Your task to perform on an android device: turn on priority inbox in the gmail app Image 0: 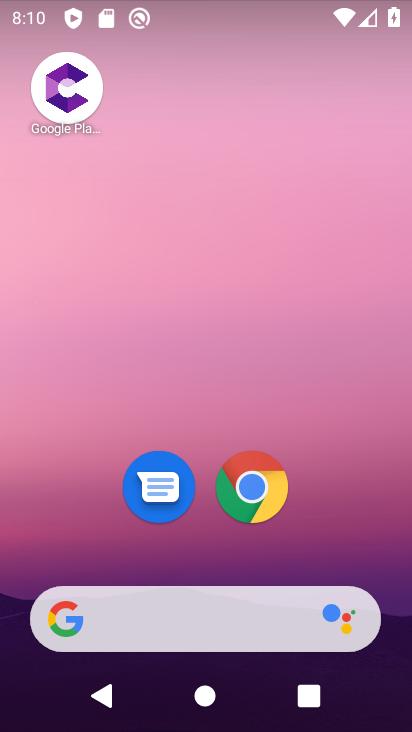
Step 0: drag from (207, 561) to (236, 87)
Your task to perform on an android device: turn on priority inbox in the gmail app Image 1: 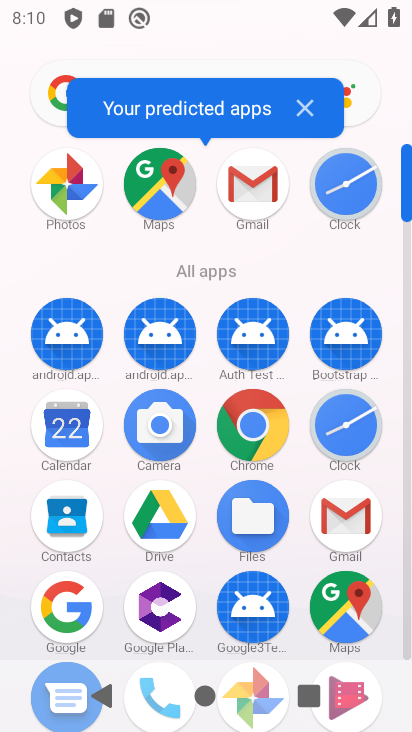
Step 1: click (260, 167)
Your task to perform on an android device: turn on priority inbox in the gmail app Image 2: 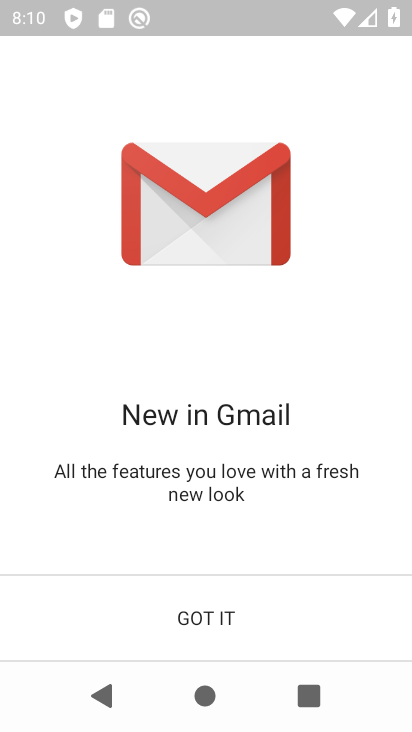
Step 2: click (261, 597)
Your task to perform on an android device: turn on priority inbox in the gmail app Image 3: 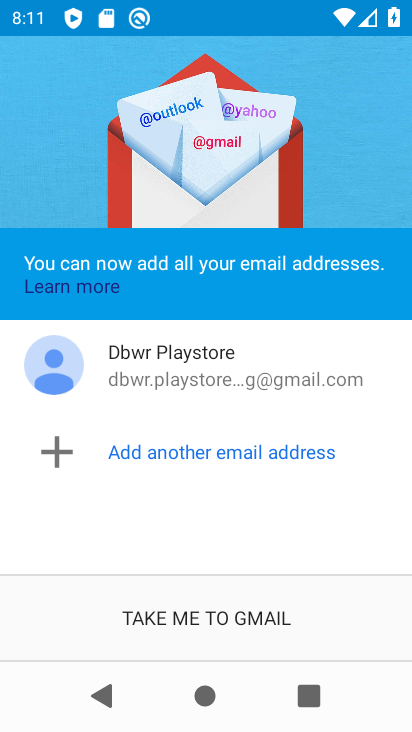
Step 3: click (261, 597)
Your task to perform on an android device: turn on priority inbox in the gmail app Image 4: 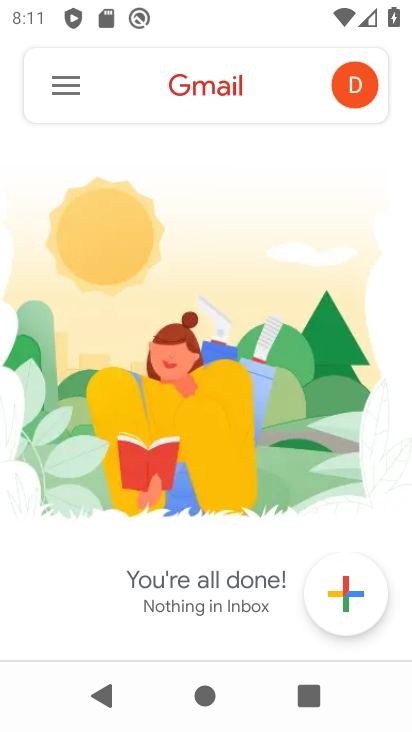
Step 4: click (74, 89)
Your task to perform on an android device: turn on priority inbox in the gmail app Image 5: 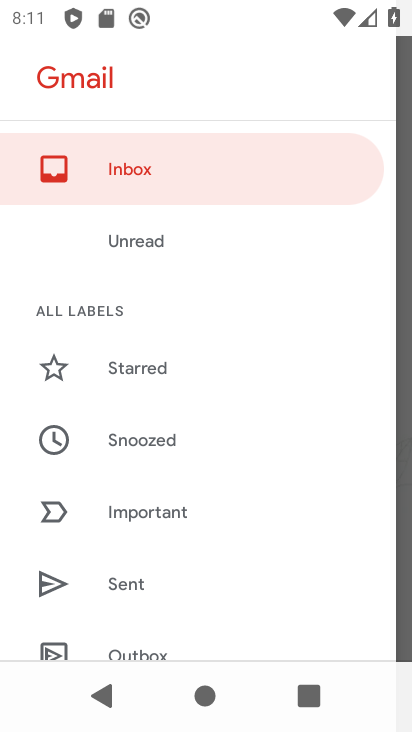
Step 5: drag from (111, 641) to (212, 91)
Your task to perform on an android device: turn on priority inbox in the gmail app Image 6: 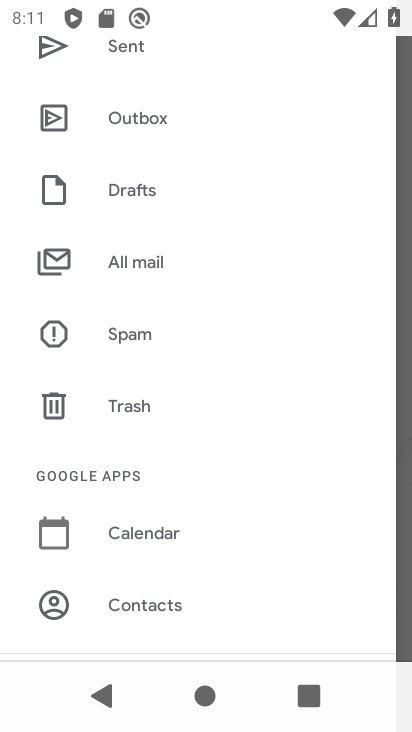
Step 6: drag from (87, 650) to (220, 153)
Your task to perform on an android device: turn on priority inbox in the gmail app Image 7: 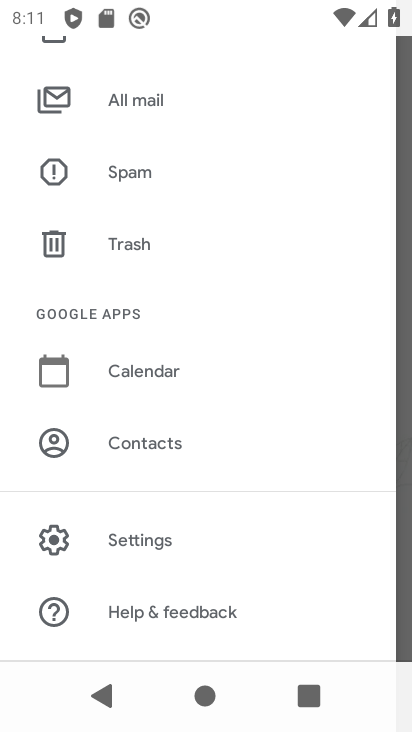
Step 7: click (93, 536)
Your task to perform on an android device: turn on priority inbox in the gmail app Image 8: 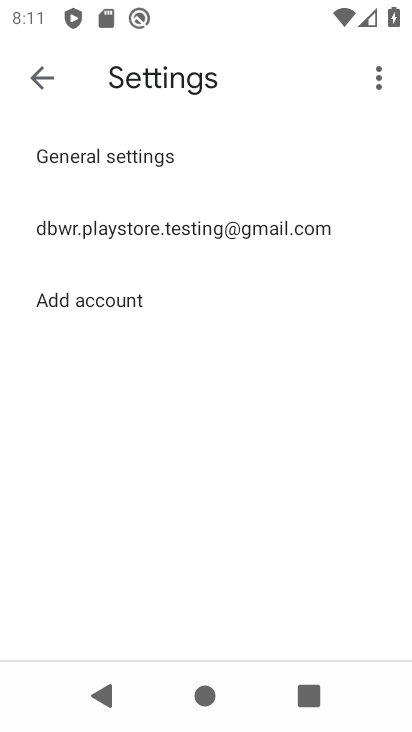
Step 8: click (262, 229)
Your task to perform on an android device: turn on priority inbox in the gmail app Image 9: 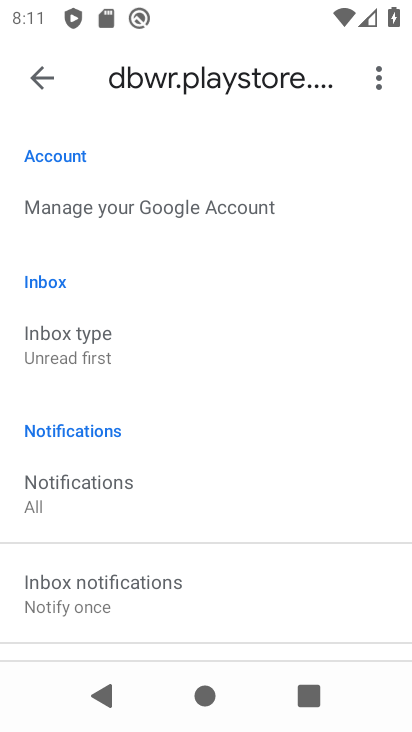
Step 9: click (151, 337)
Your task to perform on an android device: turn on priority inbox in the gmail app Image 10: 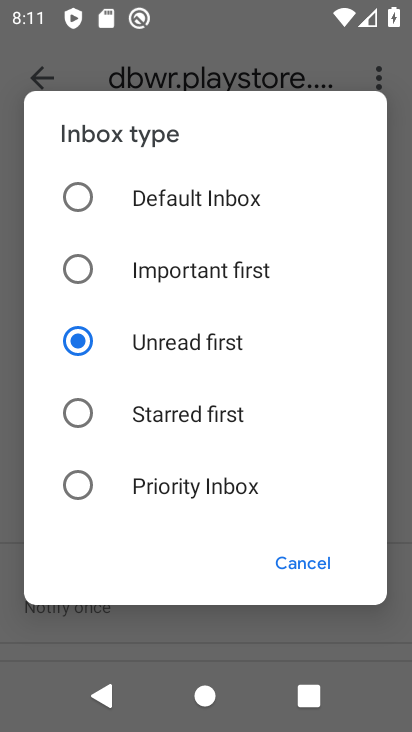
Step 10: click (165, 422)
Your task to perform on an android device: turn on priority inbox in the gmail app Image 11: 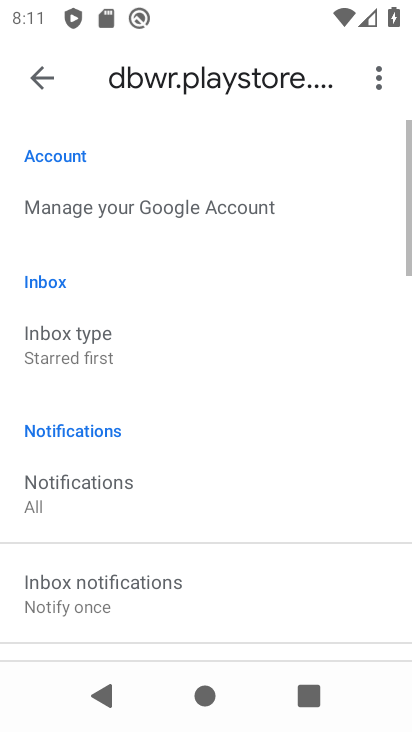
Step 11: task complete